Your task to perform on an android device: open app "Google Play Music" (install if not already installed) Image 0: 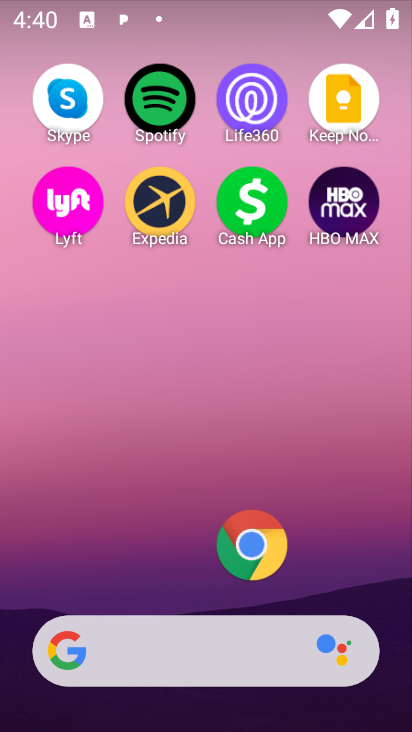
Step 0: click (254, 30)
Your task to perform on an android device: open app "Google Play Music" (install if not already installed) Image 1: 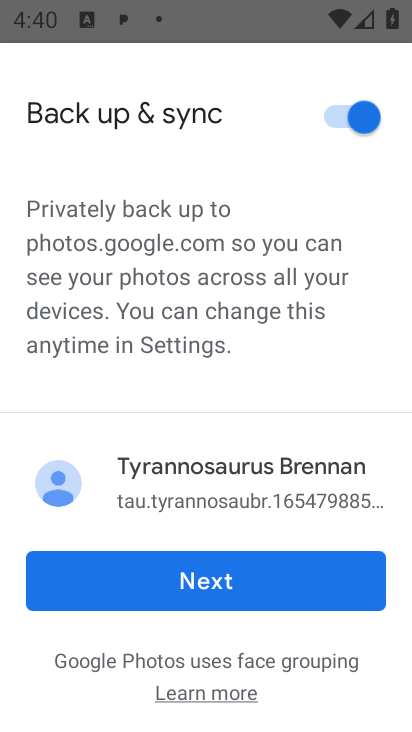
Step 1: press home button
Your task to perform on an android device: open app "Google Play Music" (install if not already installed) Image 2: 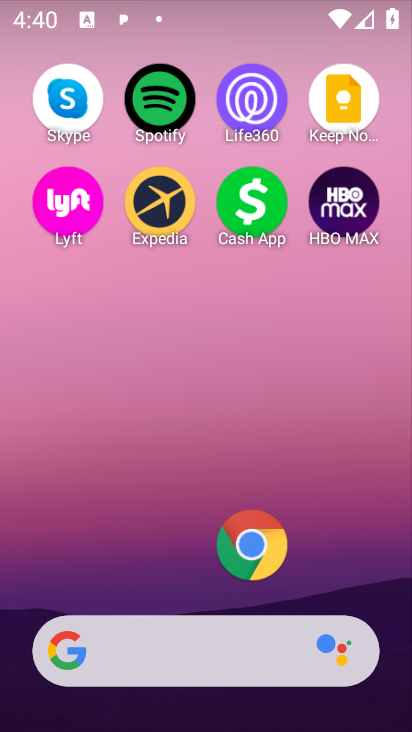
Step 2: drag from (117, 590) to (209, 72)
Your task to perform on an android device: open app "Google Play Music" (install if not already installed) Image 3: 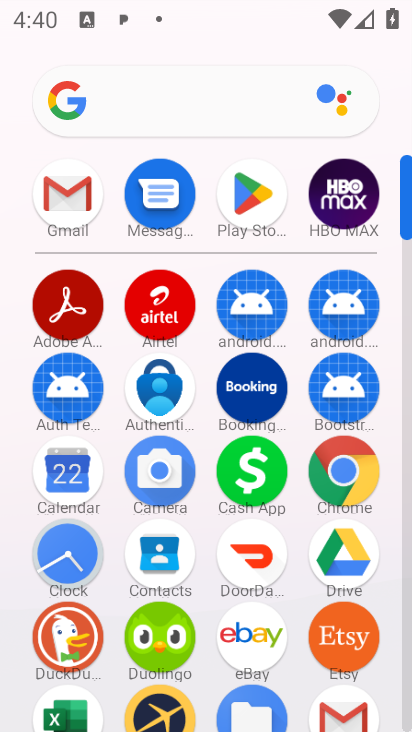
Step 3: click (243, 196)
Your task to perform on an android device: open app "Google Play Music" (install if not already installed) Image 4: 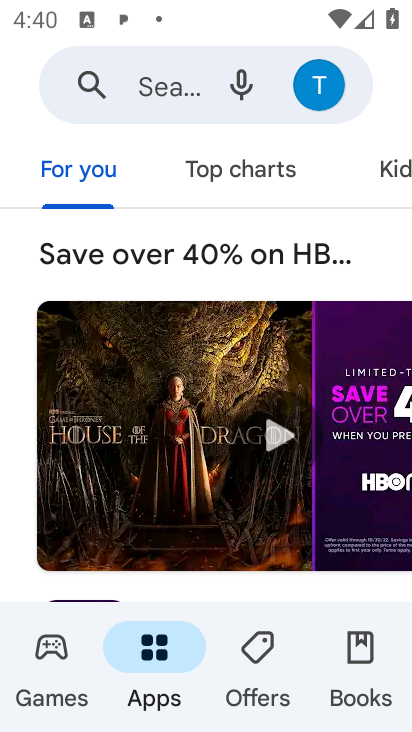
Step 4: click (188, 89)
Your task to perform on an android device: open app "Google Play Music" (install if not already installed) Image 5: 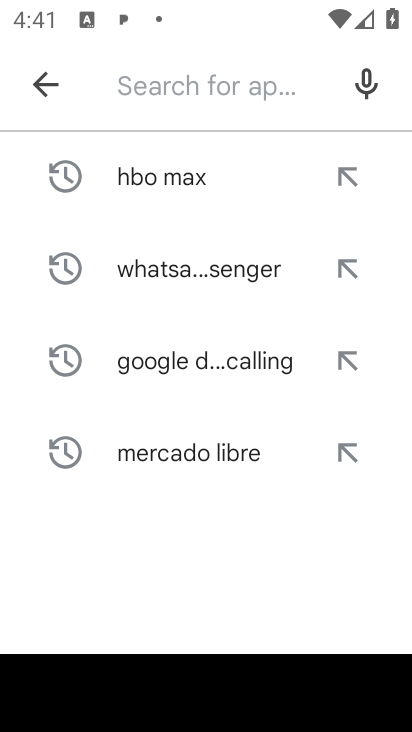
Step 5: type "goggle play music"
Your task to perform on an android device: open app "Google Play Music" (install if not already installed) Image 6: 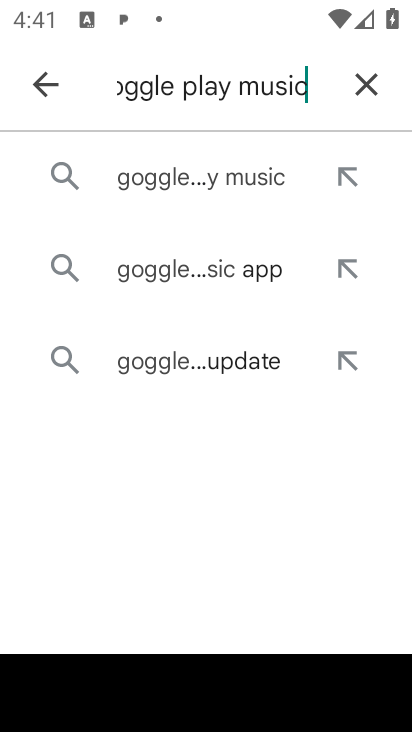
Step 6: click (211, 165)
Your task to perform on an android device: open app "Google Play Music" (install if not already installed) Image 7: 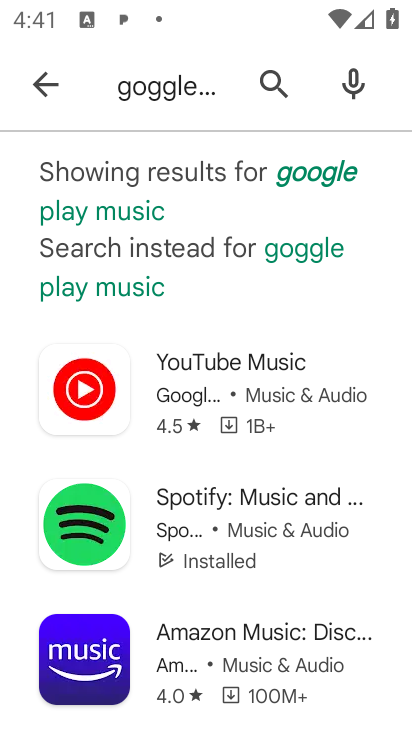
Step 7: task complete